Your task to perform on an android device: See recent photos Image 0: 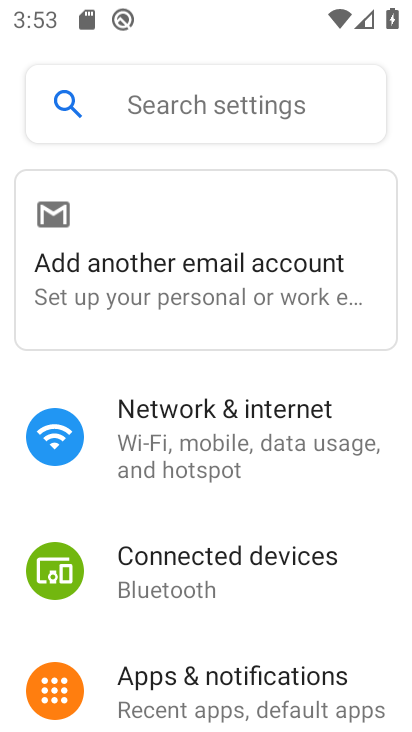
Step 0: press home button
Your task to perform on an android device: See recent photos Image 1: 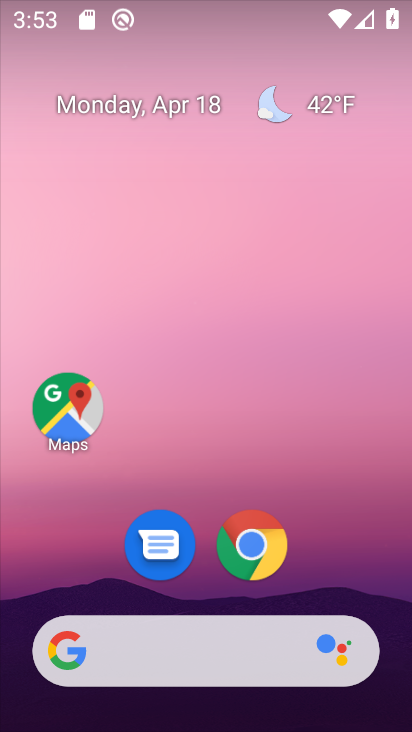
Step 1: drag from (332, 554) to (322, 200)
Your task to perform on an android device: See recent photos Image 2: 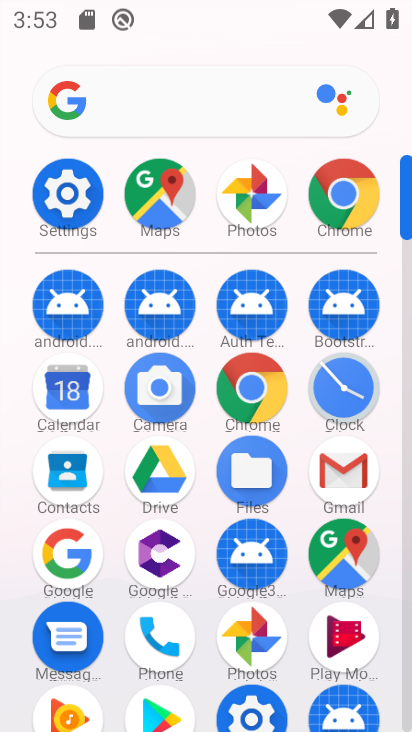
Step 2: drag from (206, 574) to (197, 416)
Your task to perform on an android device: See recent photos Image 3: 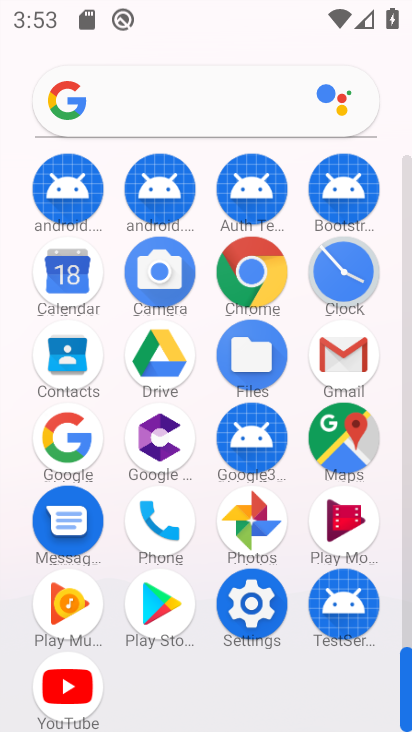
Step 3: click (240, 522)
Your task to perform on an android device: See recent photos Image 4: 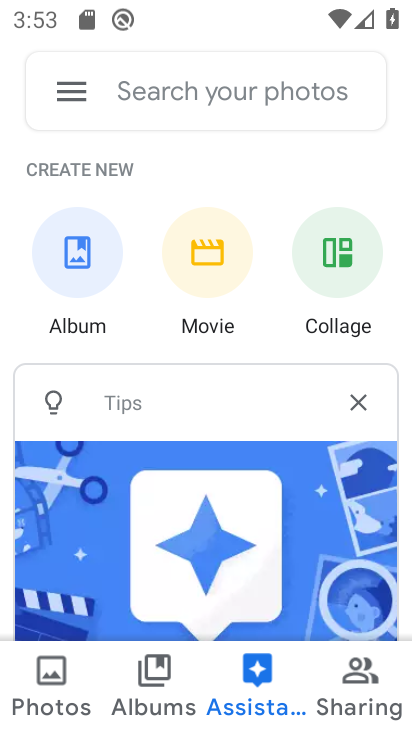
Step 4: click (57, 685)
Your task to perform on an android device: See recent photos Image 5: 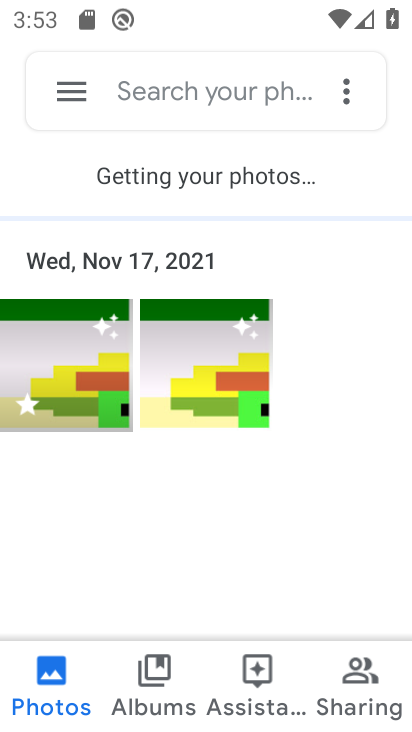
Step 5: click (86, 368)
Your task to perform on an android device: See recent photos Image 6: 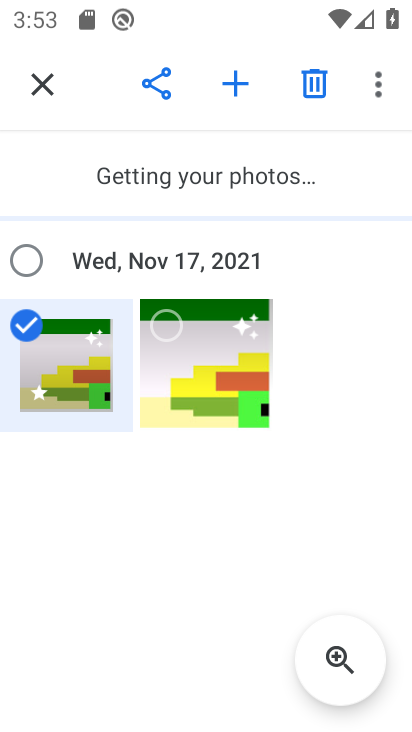
Step 6: click (71, 370)
Your task to perform on an android device: See recent photos Image 7: 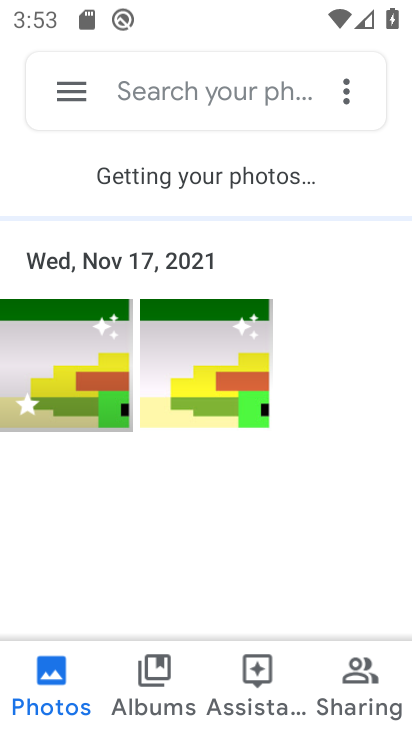
Step 7: click (70, 376)
Your task to perform on an android device: See recent photos Image 8: 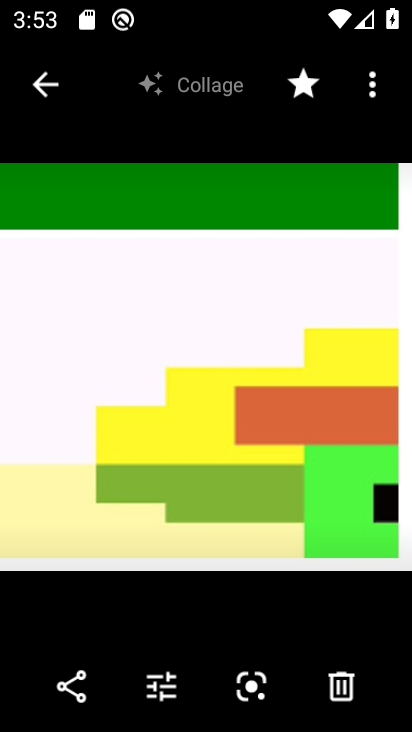
Step 8: task complete